Your task to perform on an android device: turn vacation reply on in the gmail app Image 0: 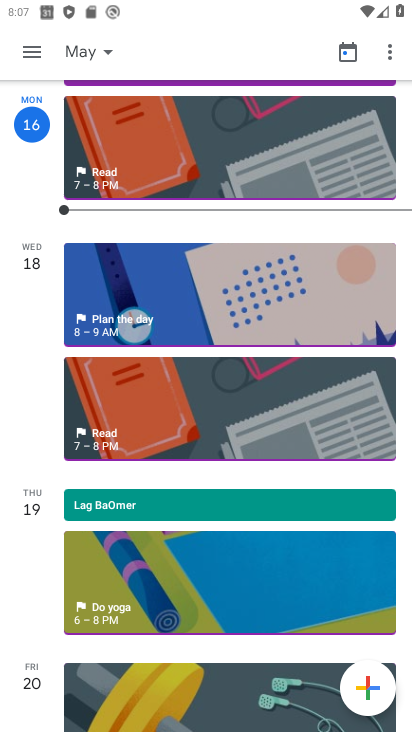
Step 0: press home button
Your task to perform on an android device: turn vacation reply on in the gmail app Image 1: 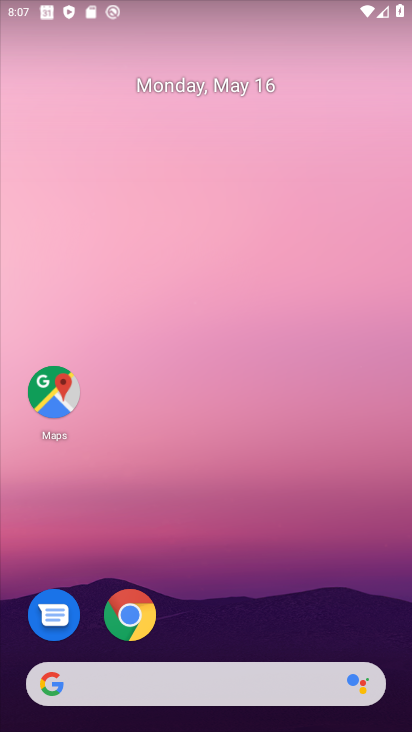
Step 1: drag from (223, 673) to (223, 40)
Your task to perform on an android device: turn vacation reply on in the gmail app Image 2: 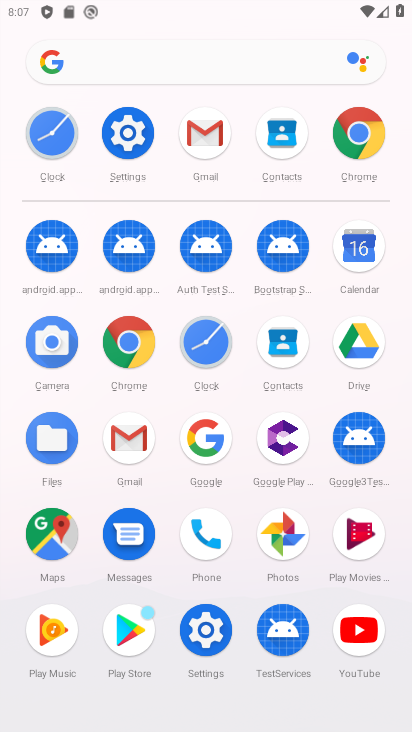
Step 2: click (138, 442)
Your task to perform on an android device: turn vacation reply on in the gmail app Image 3: 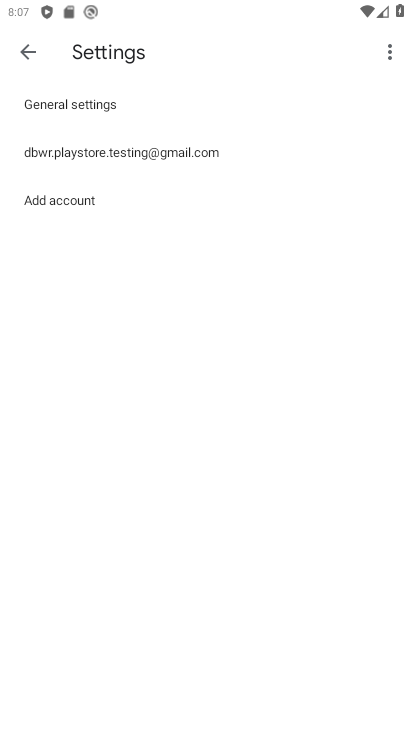
Step 3: click (205, 137)
Your task to perform on an android device: turn vacation reply on in the gmail app Image 4: 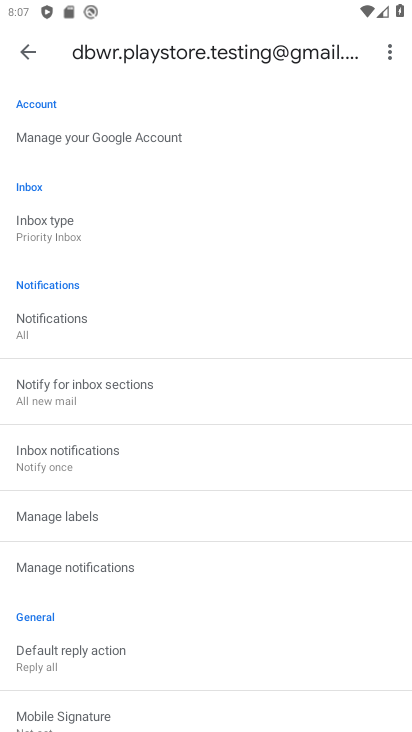
Step 4: drag from (174, 602) to (306, 103)
Your task to perform on an android device: turn vacation reply on in the gmail app Image 5: 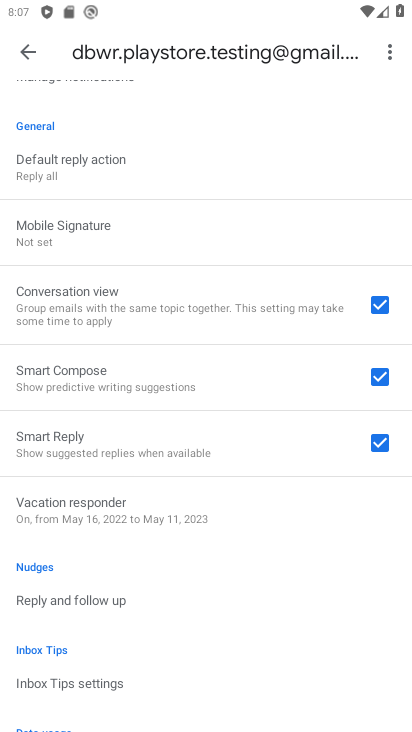
Step 5: click (246, 522)
Your task to perform on an android device: turn vacation reply on in the gmail app Image 6: 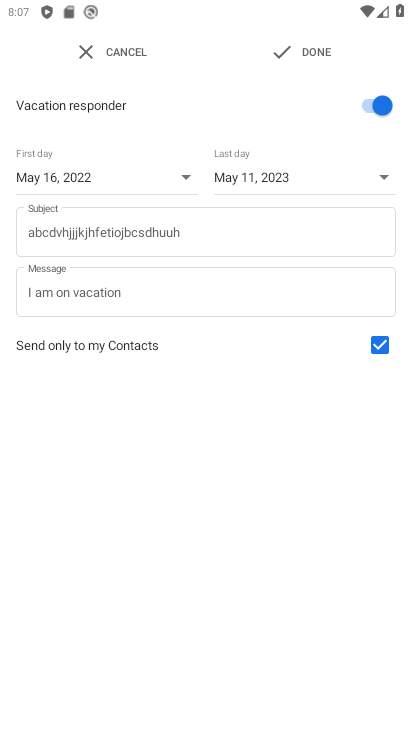
Step 6: task complete